Your task to perform on an android device: Open Google Chrome and click the shortcut for Amazon.com Image 0: 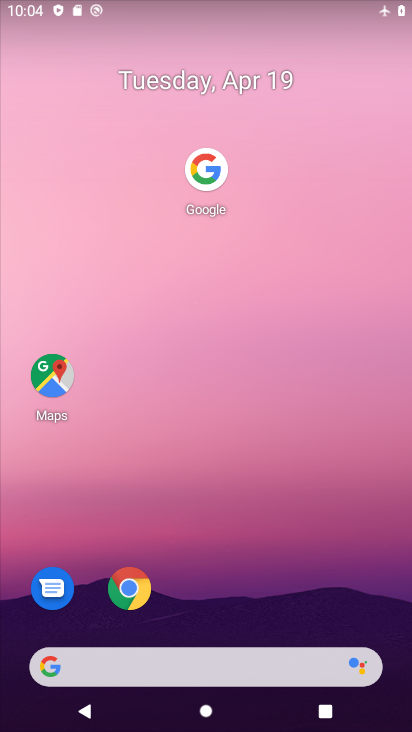
Step 0: click (132, 593)
Your task to perform on an android device: Open Google Chrome and click the shortcut for Amazon.com Image 1: 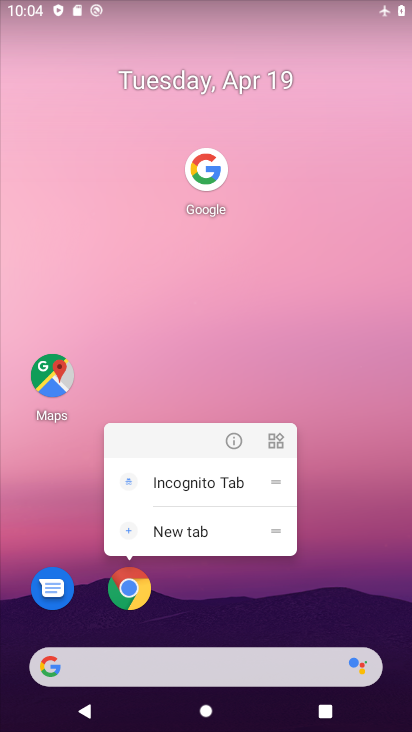
Step 1: click (132, 593)
Your task to perform on an android device: Open Google Chrome and click the shortcut for Amazon.com Image 2: 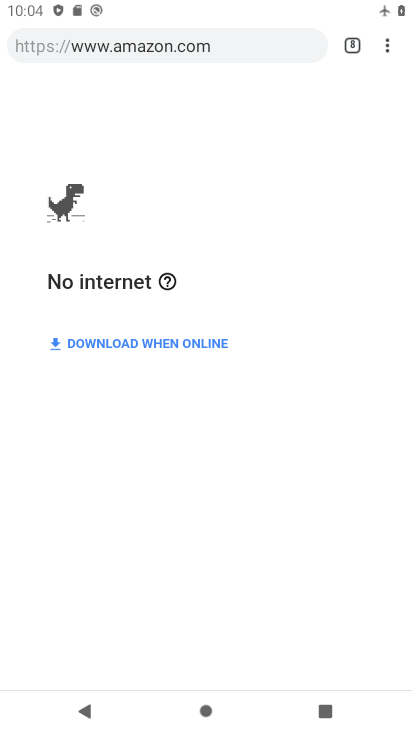
Step 2: click (386, 45)
Your task to perform on an android device: Open Google Chrome and click the shortcut for Amazon.com Image 3: 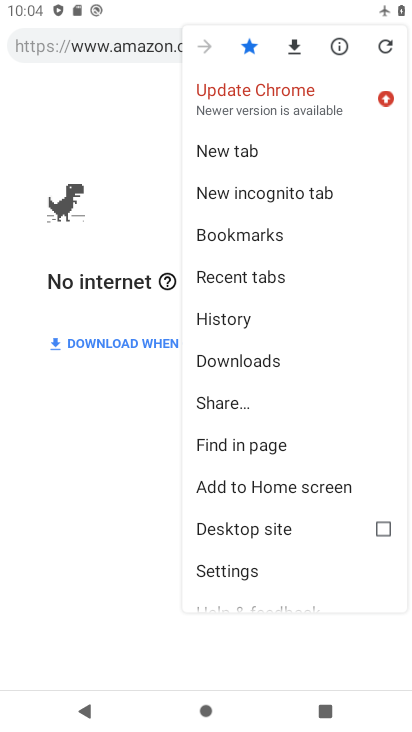
Step 3: click (232, 154)
Your task to perform on an android device: Open Google Chrome and click the shortcut for Amazon.com Image 4: 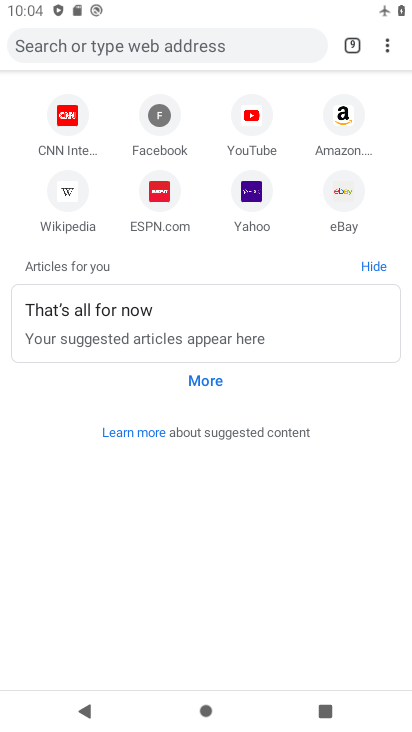
Step 4: click (338, 109)
Your task to perform on an android device: Open Google Chrome and click the shortcut for Amazon.com Image 5: 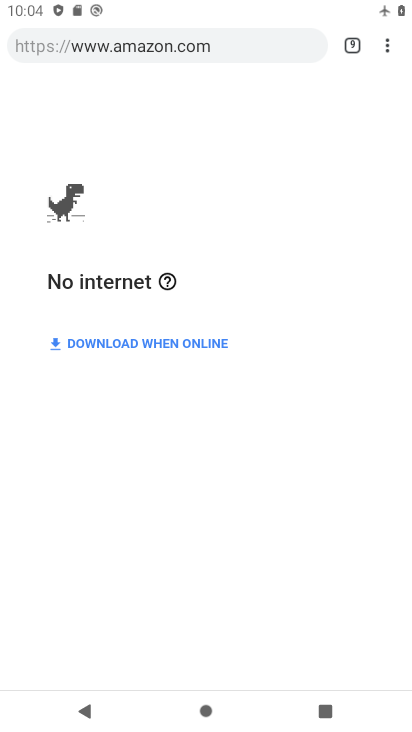
Step 5: task complete